Your task to perform on an android device: Go to display settings Image 0: 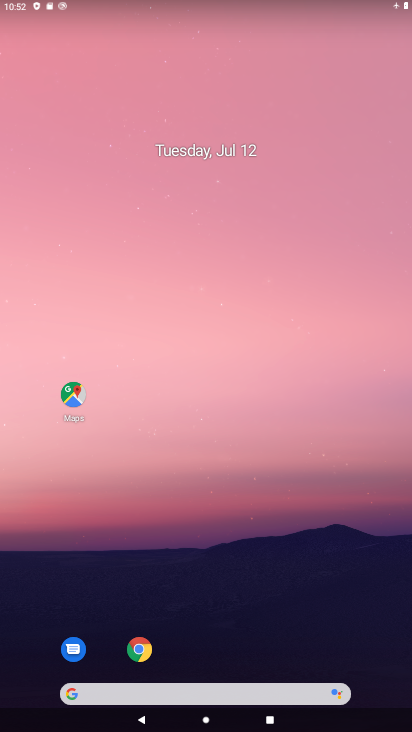
Step 0: drag from (368, 687) to (341, 116)
Your task to perform on an android device: Go to display settings Image 1: 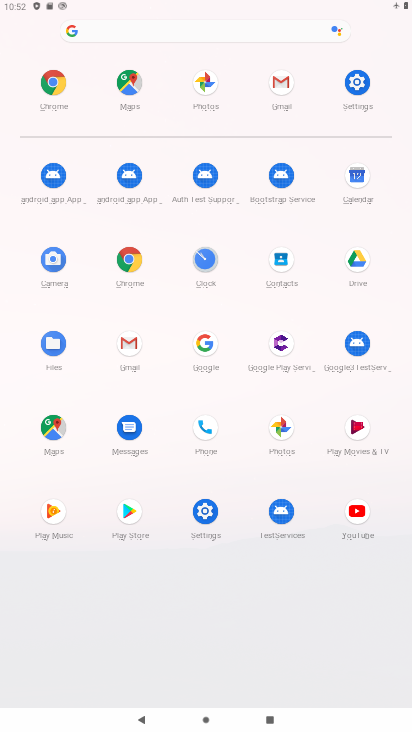
Step 1: click (205, 514)
Your task to perform on an android device: Go to display settings Image 2: 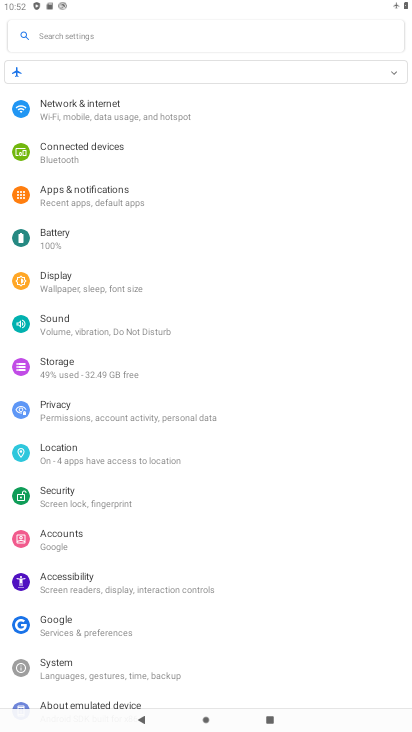
Step 2: click (55, 271)
Your task to perform on an android device: Go to display settings Image 3: 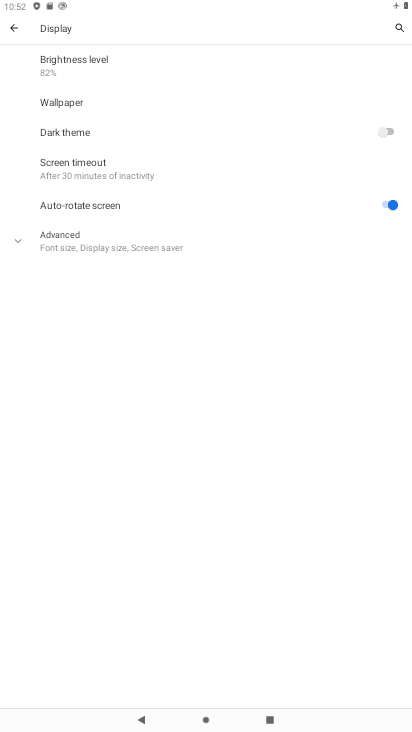
Step 3: click (21, 238)
Your task to perform on an android device: Go to display settings Image 4: 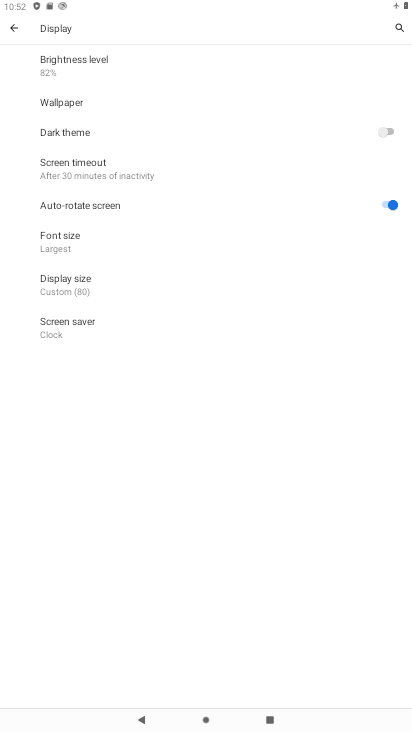
Step 4: task complete